Your task to perform on an android device: manage bookmarks in the chrome app Image 0: 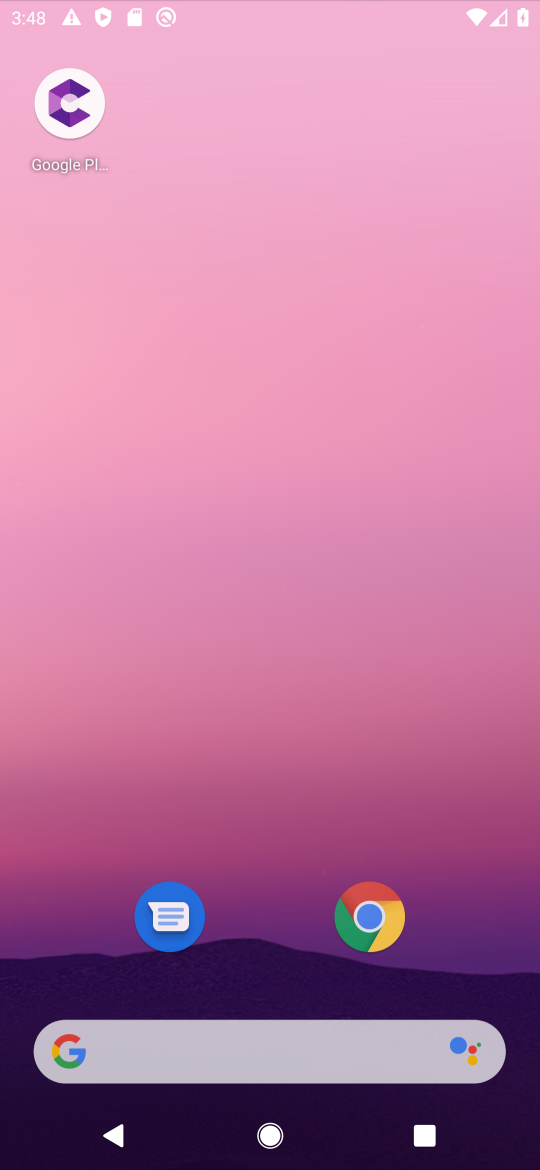
Step 0: press back button
Your task to perform on an android device: manage bookmarks in the chrome app Image 1: 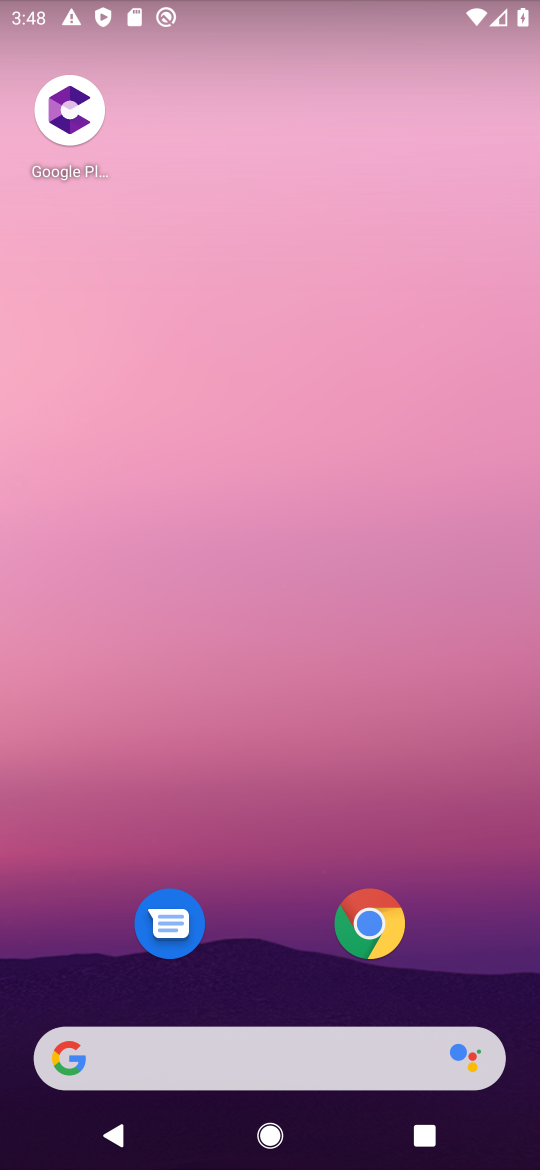
Step 1: click (366, 928)
Your task to perform on an android device: manage bookmarks in the chrome app Image 2: 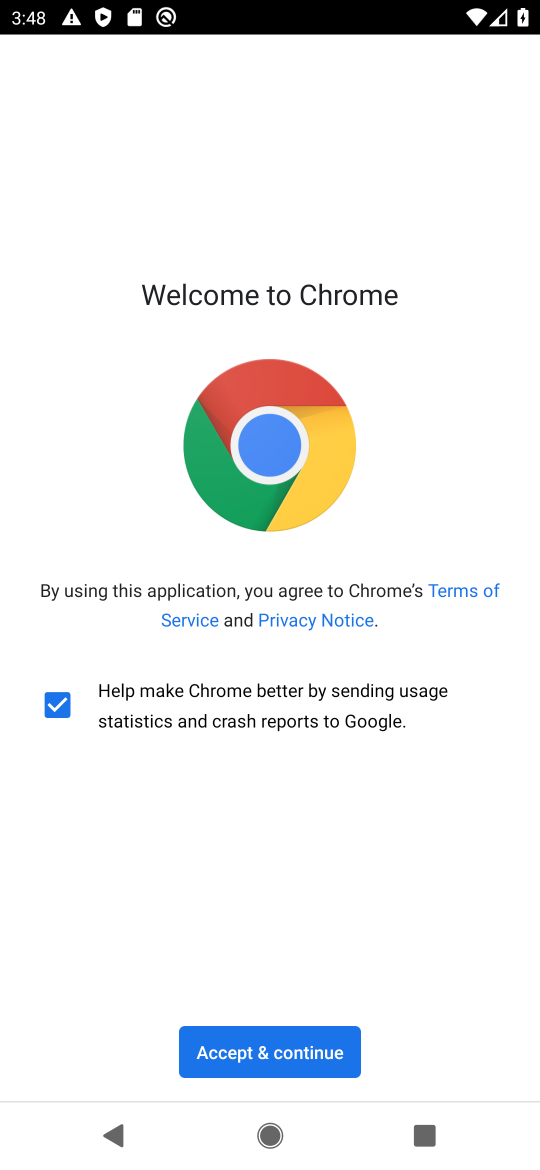
Step 2: click (242, 1039)
Your task to perform on an android device: manage bookmarks in the chrome app Image 3: 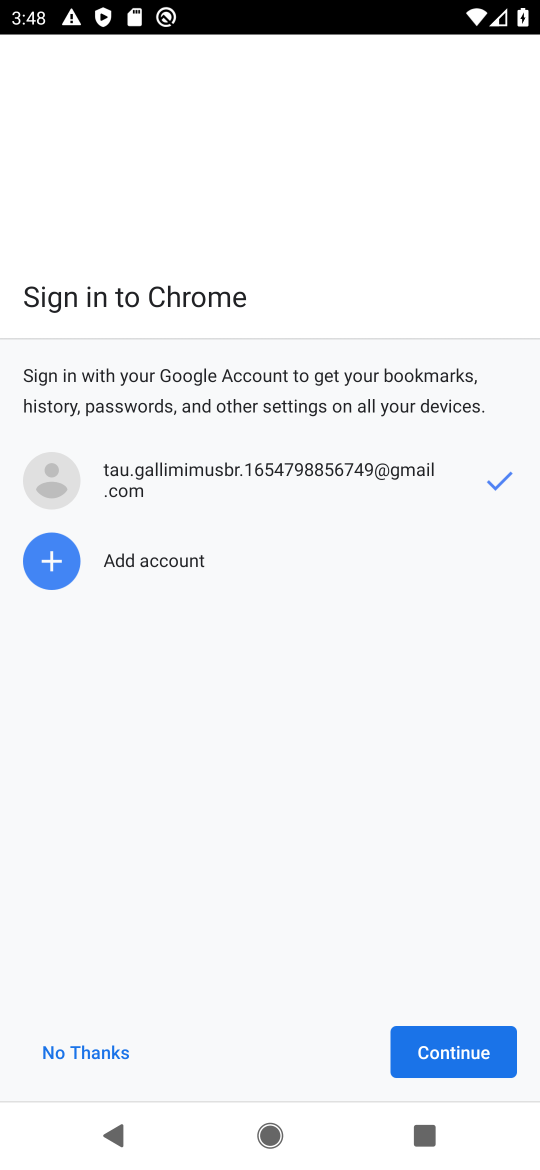
Step 3: click (472, 1061)
Your task to perform on an android device: manage bookmarks in the chrome app Image 4: 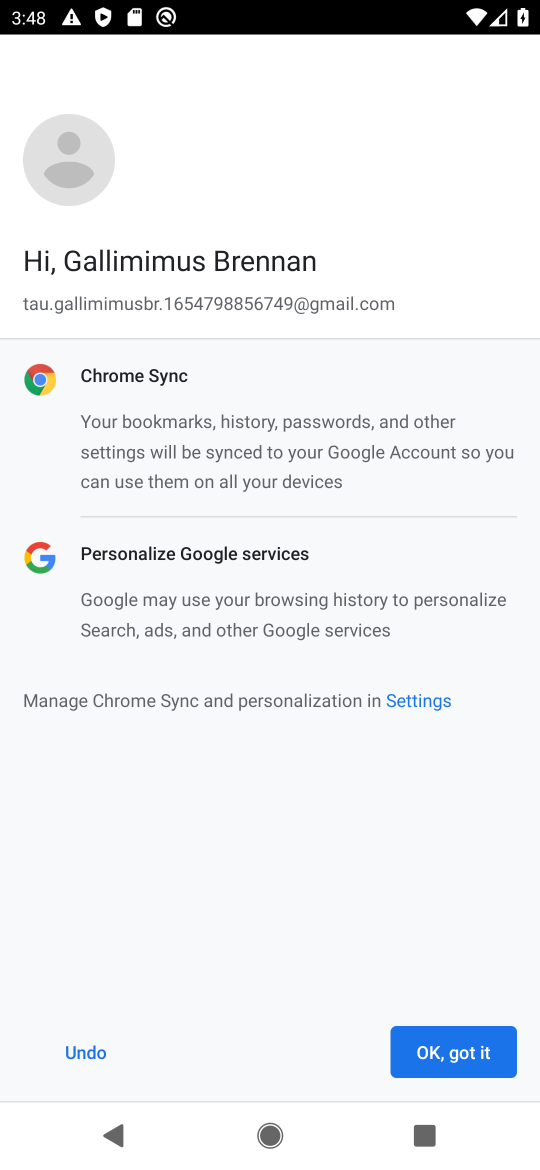
Step 4: click (443, 1063)
Your task to perform on an android device: manage bookmarks in the chrome app Image 5: 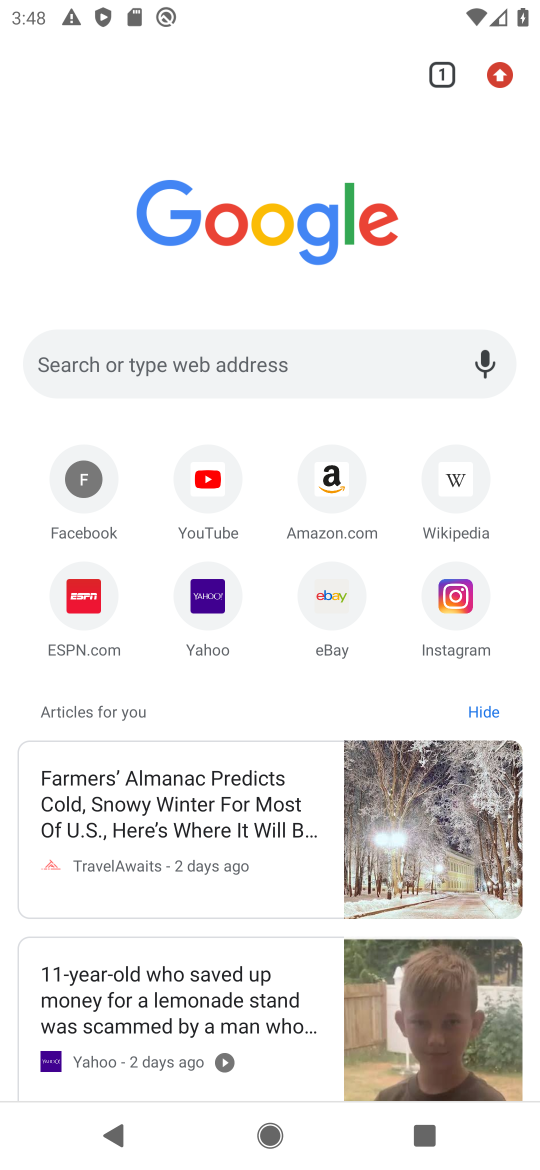
Step 5: drag from (494, 75) to (257, 363)
Your task to perform on an android device: manage bookmarks in the chrome app Image 6: 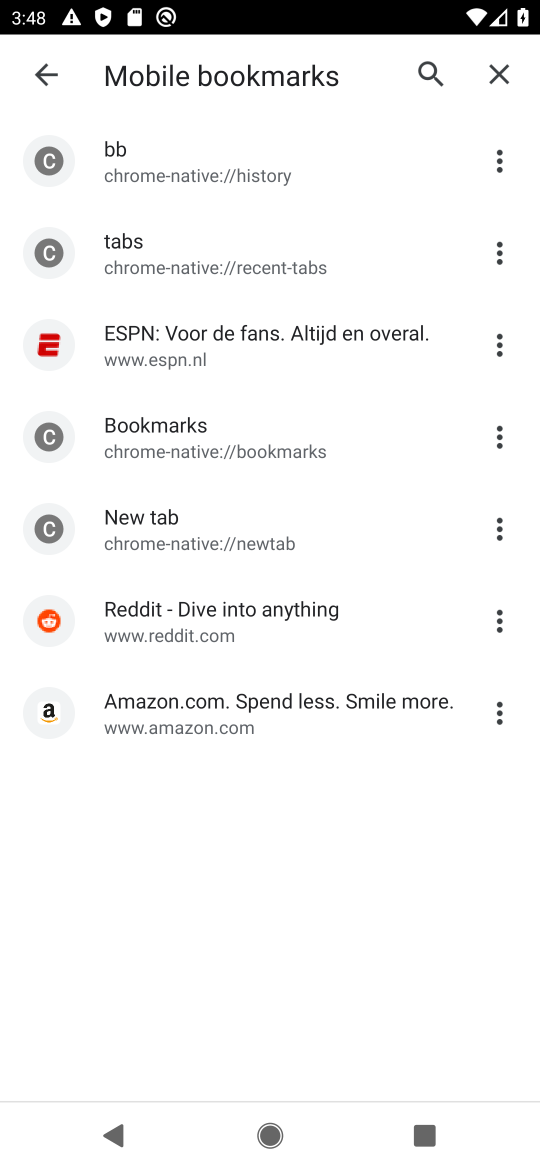
Step 6: click (502, 332)
Your task to perform on an android device: manage bookmarks in the chrome app Image 7: 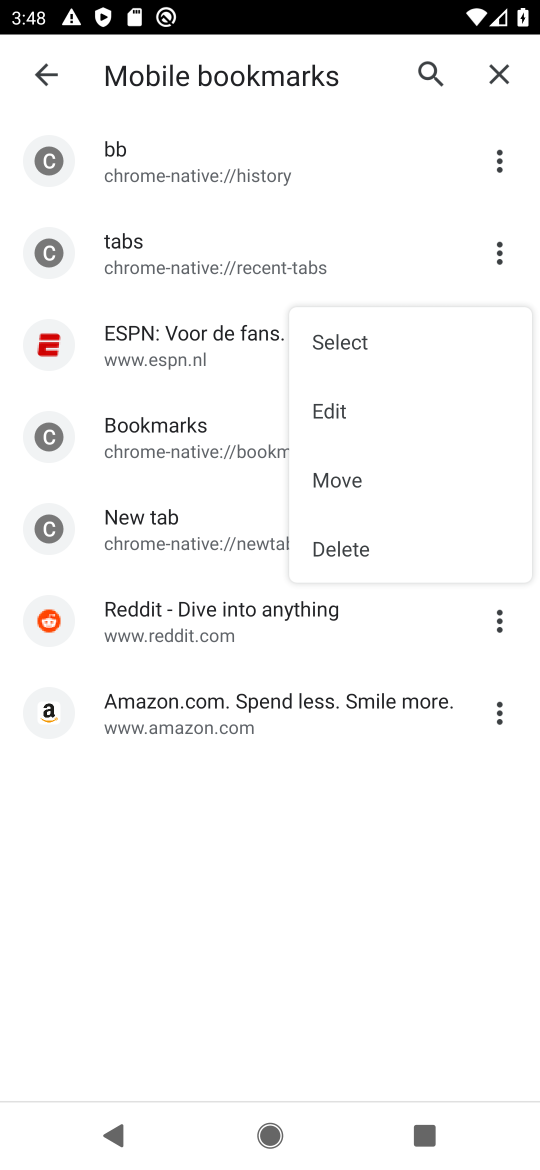
Step 7: click (326, 545)
Your task to perform on an android device: manage bookmarks in the chrome app Image 8: 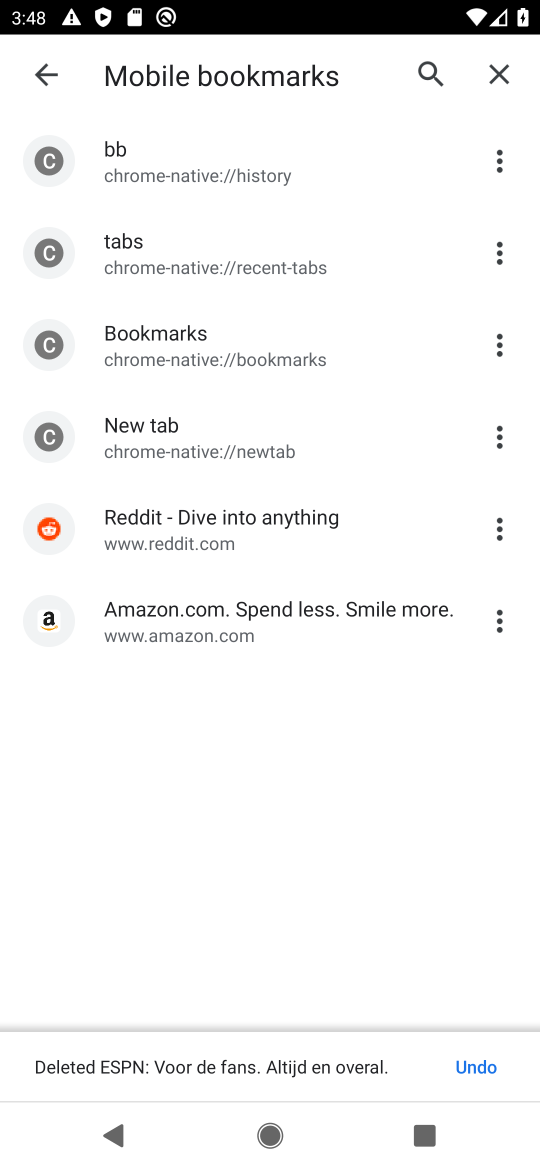
Step 8: task complete